Your task to perform on an android device: find snoozed emails in the gmail app Image 0: 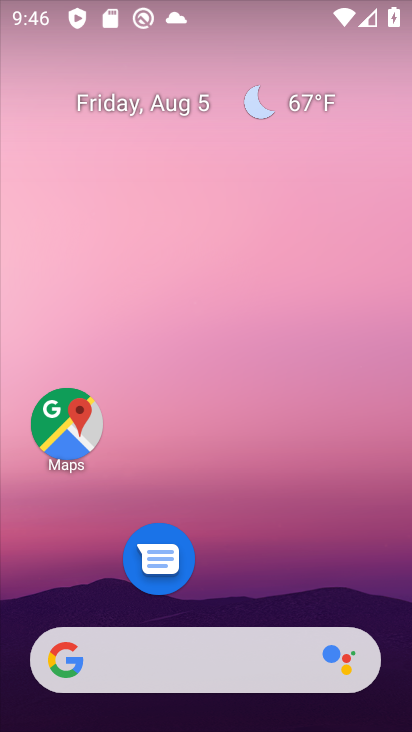
Step 0: drag from (200, 650) to (223, 162)
Your task to perform on an android device: find snoozed emails in the gmail app Image 1: 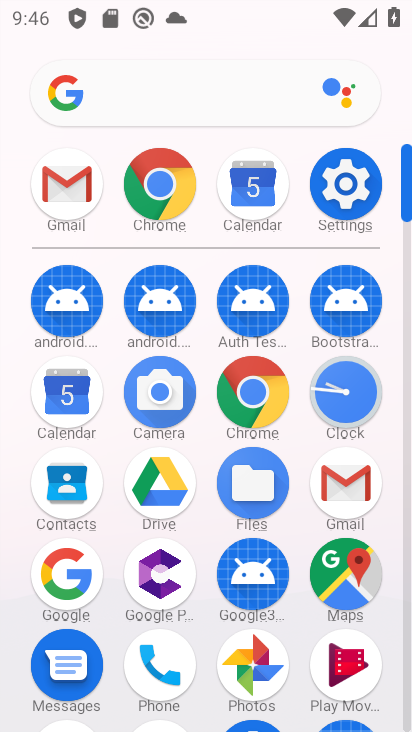
Step 1: click (348, 482)
Your task to perform on an android device: find snoozed emails in the gmail app Image 2: 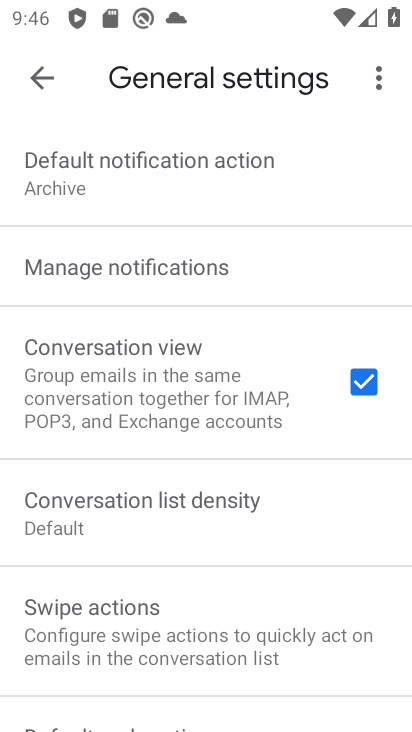
Step 2: click (50, 78)
Your task to perform on an android device: find snoozed emails in the gmail app Image 3: 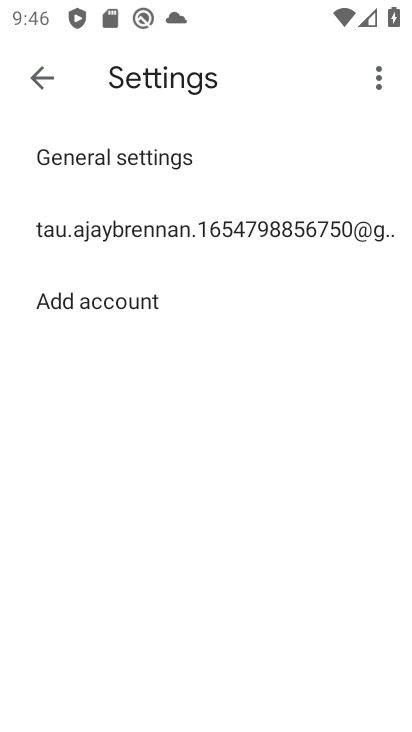
Step 3: click (46, 81)
Your task to perform on an android device: find snoozed emails in the gmail app Image 4: 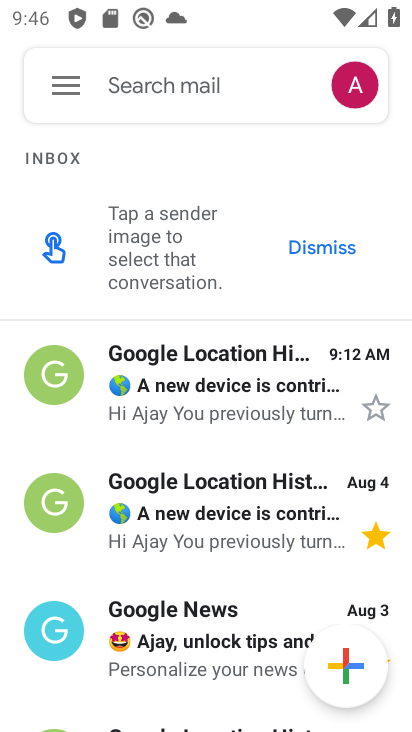
Step 4: click (69, 81)
Your task to perform on an android device: find snoozed emails in the gmail app Image 5: 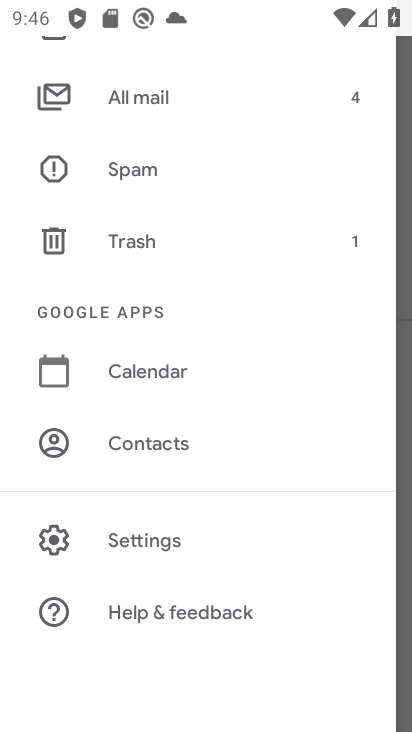
Step 5: drag from (199, 313) to (180, 712)
Your task to perform on an android device: find snoozed emails in the gmail app Image 6: 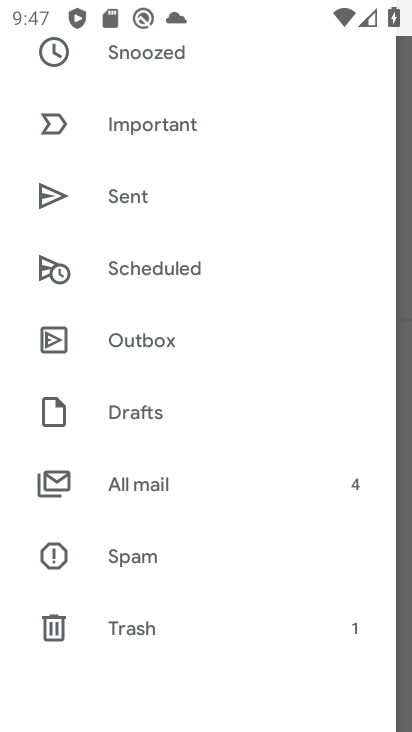
Step 6: drag from (201, 346) to (160, 712)
Your task to perform on an android device: find snoozed emails in the gmail app Image 7: 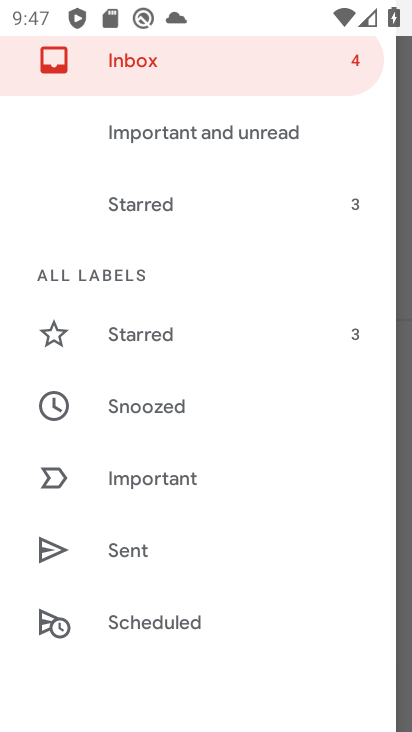
Step 7: click (155, 404)
Your task to perform on an android device: find snoozed emails in the gmail app Image 8: 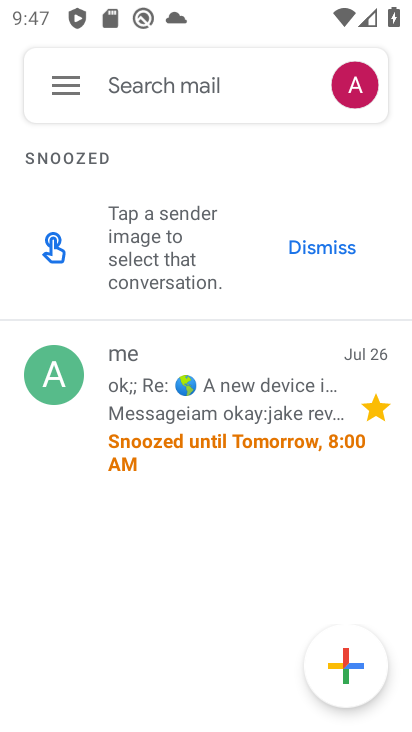
Step 8: task complete